Your task to perform on an android device: remove spam from my inbox in the gmail app Image 0: 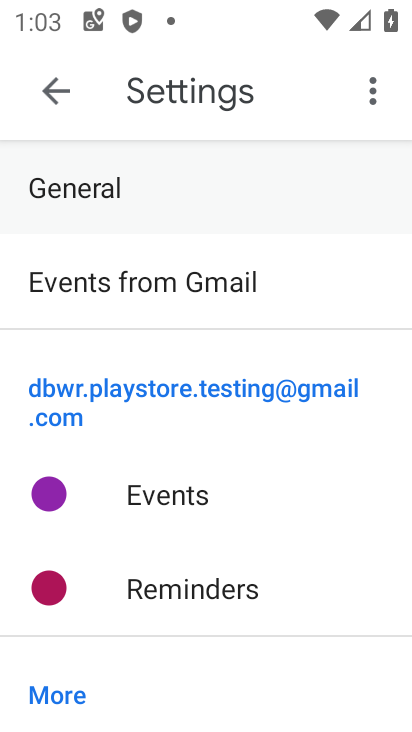
Step 0: press home button
Your task to perform on an android device: remove spam from my inbox in the gmail app Image 1: 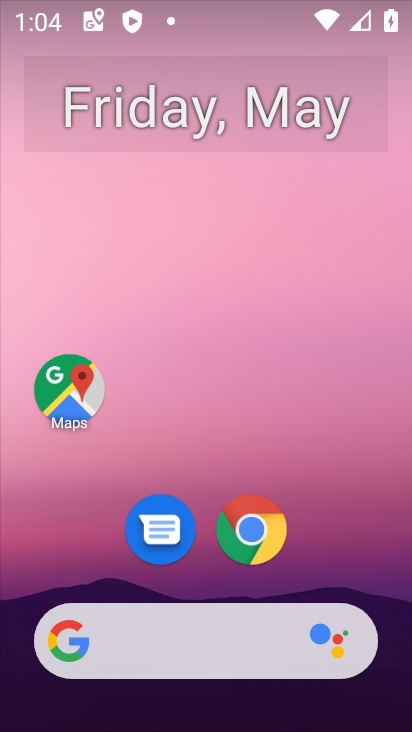
Step 1: drag from (359, 547) to (309, 190)
Your task to perform on an android device: remove spam from my inbox in the gmail app Image 2: 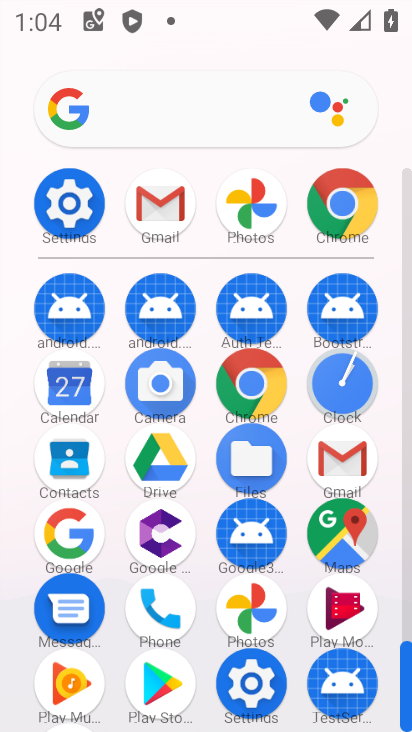
Step 2: click (172, 189)
Your task to perform on an android device: remove spam from my inbox in the gmail app Image 3: 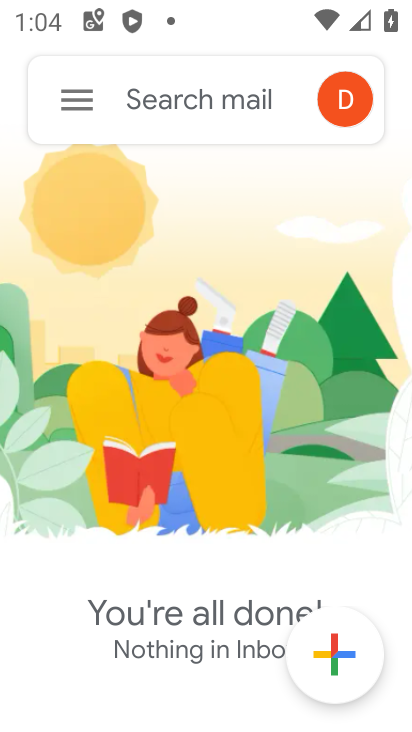
Step 3: click (85, 86)
Your task to perform on an android device: remove spam from my inbox in the gmail app Image 4: 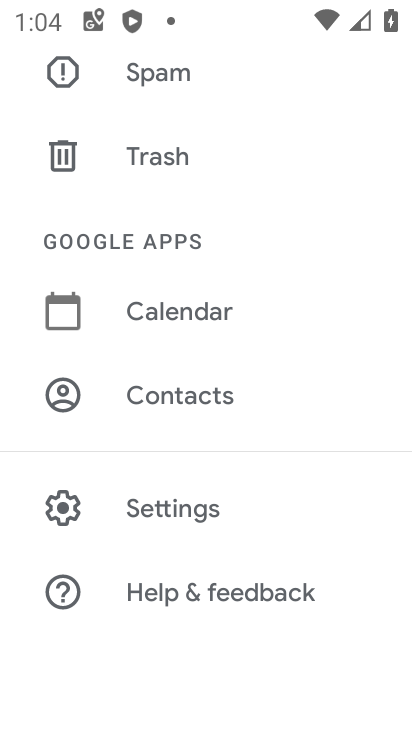
Step 4: click (93, 506)
Your task to perform on an android device: remove spam from my inbox in the gmail app Image 5: 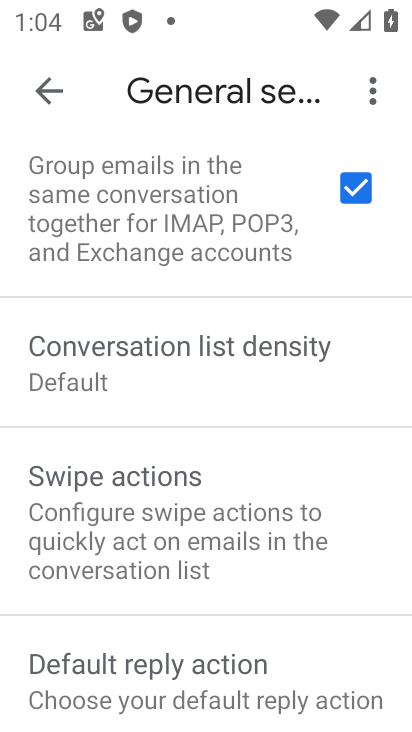
Step 5: click (64, 82)
Your task to perform on an android device: remove spam from my inbox in the gmail app Image 6: 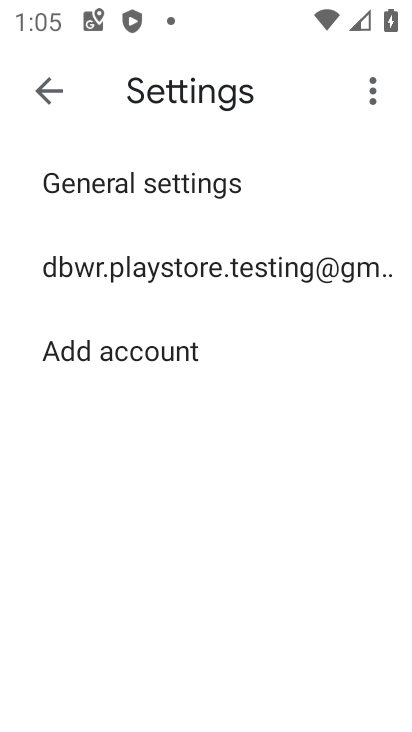
Step 6: click (28, 80)
Your task to perform on an android device: remove spam from my inbox in the gmail app Image 7: 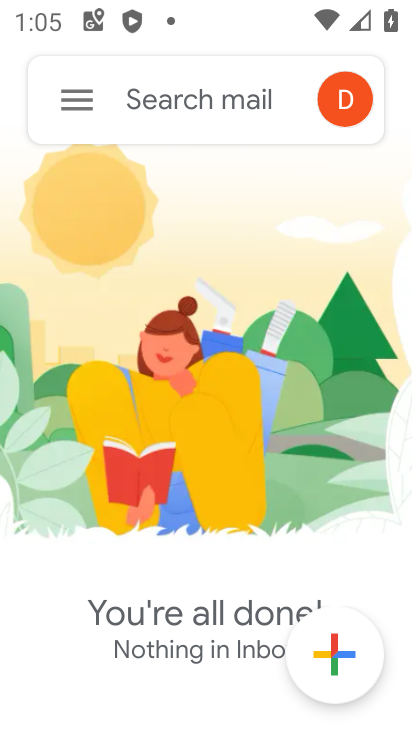
Step 7: click (81, 115)
Your task to perform on an android device: remove spam from my inbox in the gmail app Image 8: 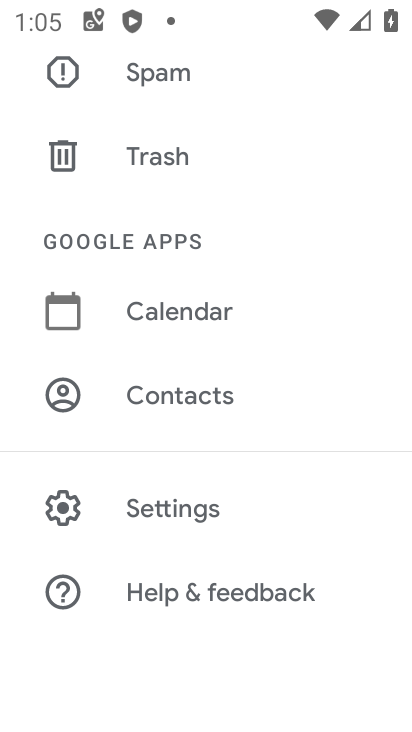
Step 8: drag from (220, 334) to (262, 713)
Your task to perform on an android device: remove spam from my inbox in the gmail app Image 9: 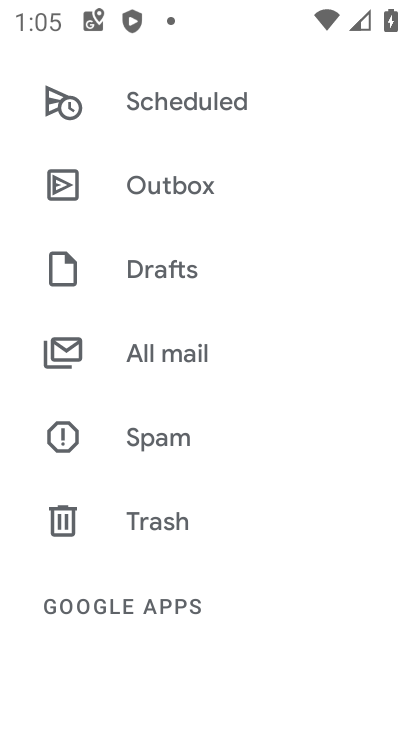
Step 9: click (204, 452)
Your task to perform on an android device: remove spam from my inbox in the gmail app Image 10: 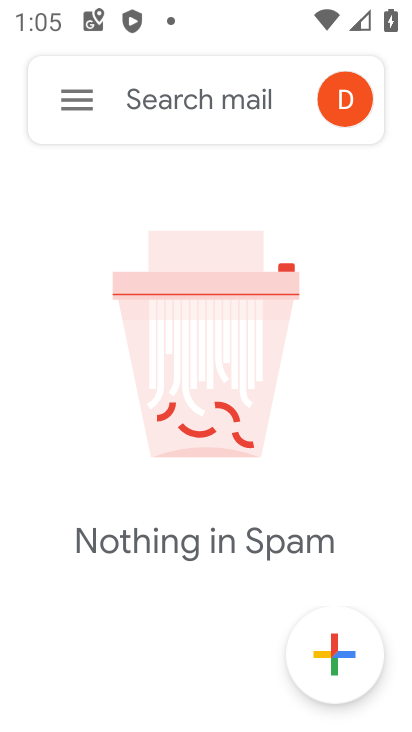
Step 10: task complete